Your task to perform on an android device: Open calendar and show me the fourth week of next month Image 0: 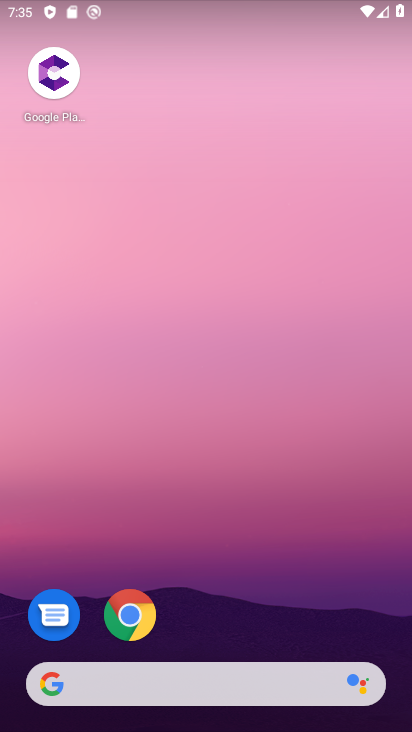
Step 0: drag from (168, 600) to (232, 10)
Your task to perform on an android device: Open calendar and show me the fourth week of next month Image 1: 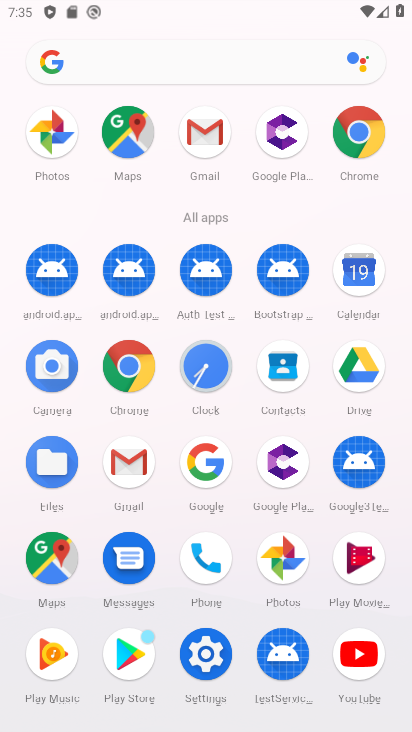
Step 1: click (352, 290)
Your task to perform on an android device: Open calendar and show me the fourth week of next month Image 2: 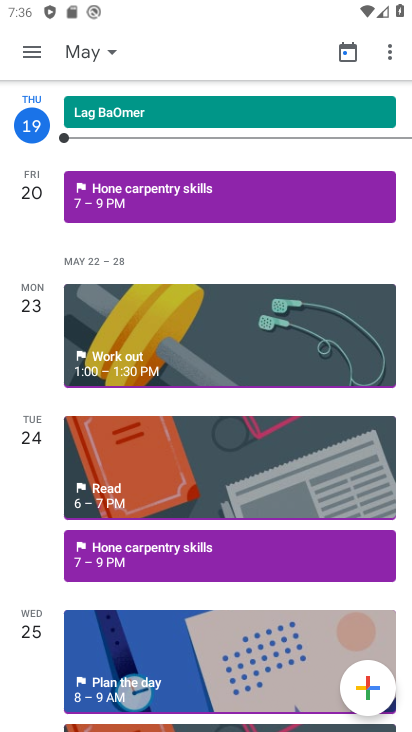
Step 2: click (102, 56)
Your task to perform on an android device: Open calendar and show me the fourth week of next month Image 3: 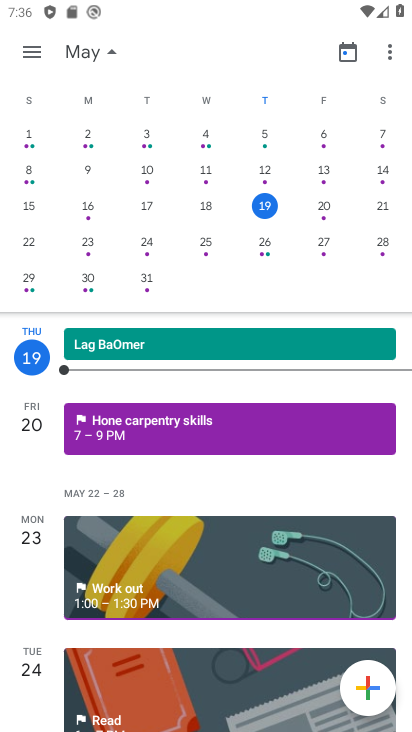
Step 3: drag from (320, 195) to (107, 40)
Your task to perform on an android device: Open calendar and show me the fourth week of next month Image 4: 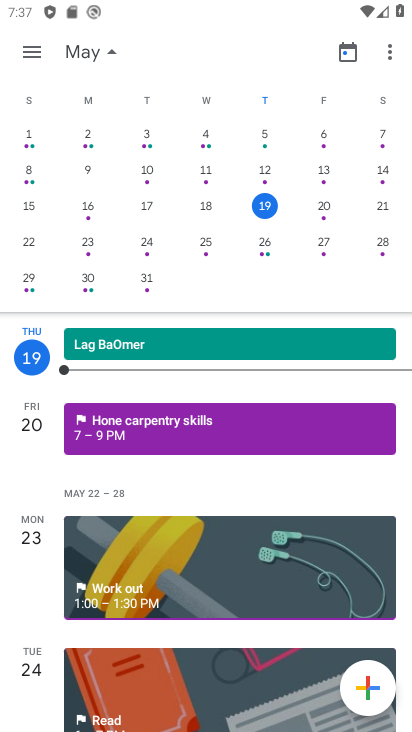
Step 4: drag from (331, 243) to (78, 234)
Your task to perform on an android device: Open calendar and show me the fourth week of next month Image 5: 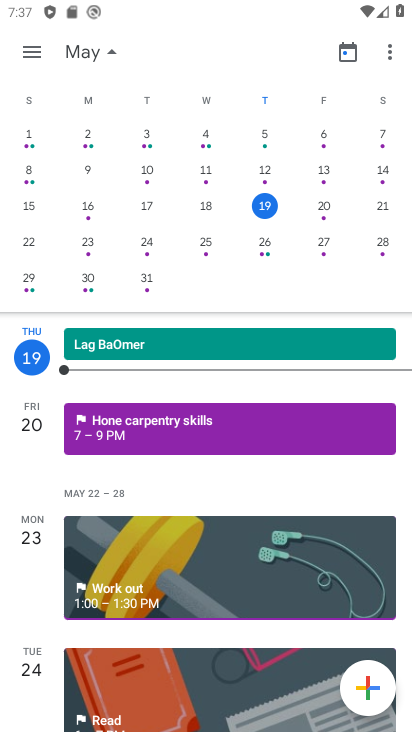
Step 5: drag from (343, 242) to (9, 206)
Your task to perform on an android device: Open calendar and show me the fourth week of next month Image 6: 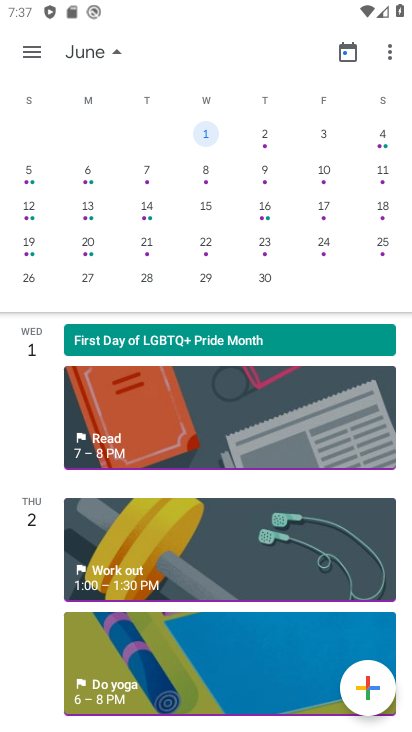
Step 6: click (29, 285)
Your task to perform on an android device: Open calendar and show me the fourth week of next month Image 7: 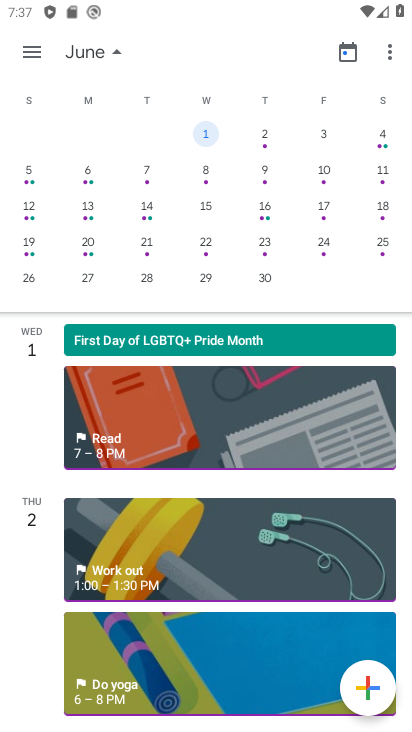
Step 7: click (34, 280)
Your task to perform on an android device: Open calendar and show me the fourth week of next month Image 8: 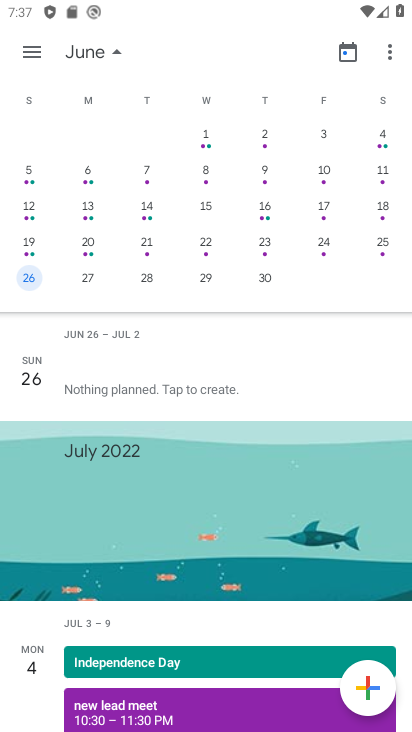
Step 8: task complete